Your task to perform on an android device: Go to ESPN.com Image 0: 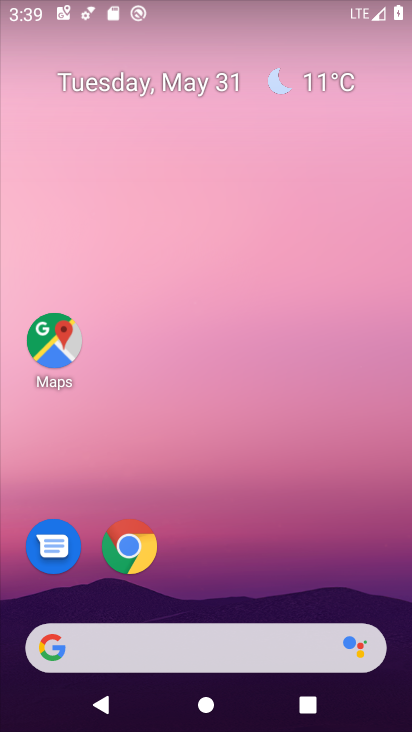
Step 0: click (129, 556)
Your task to perform on an android device: Go to ESPN.com Image 1: 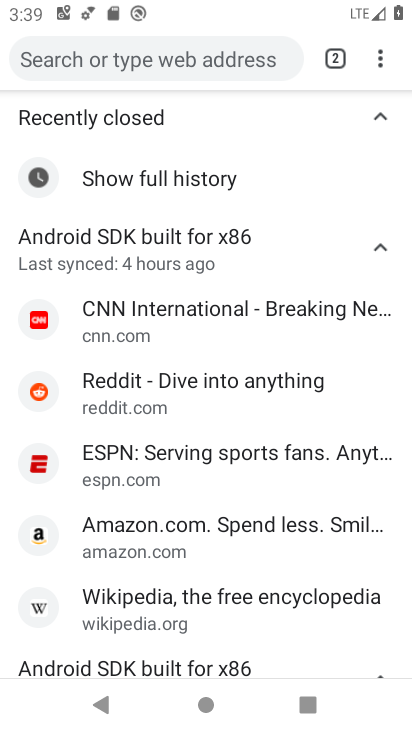
Step 1: click (329, 62)
Your task to perform on an android device: Go to ESPN.com Image 2: 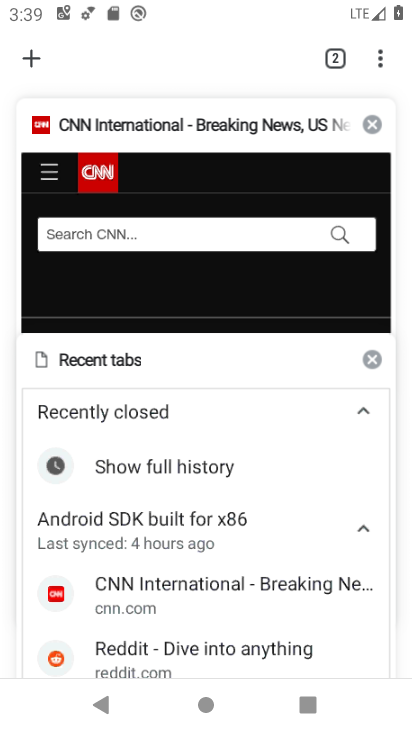
Step 2: click (17, 64)
Your task to perform on an android device: Go to ESPN.com Image 3: 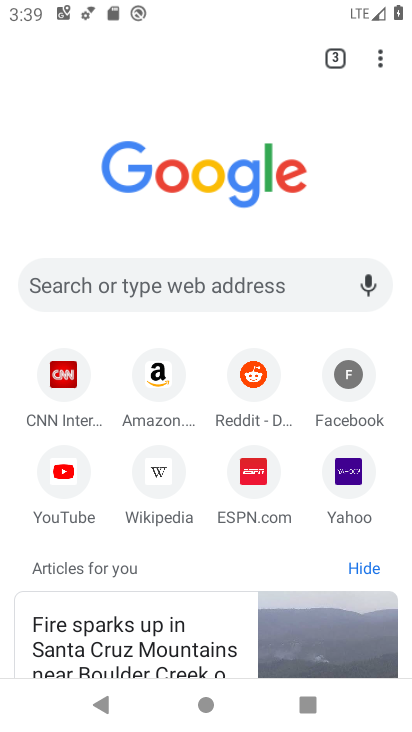
Step 3: click (263, 468)
Your task to perform on an android device: Go to ESPN.com Image 4: 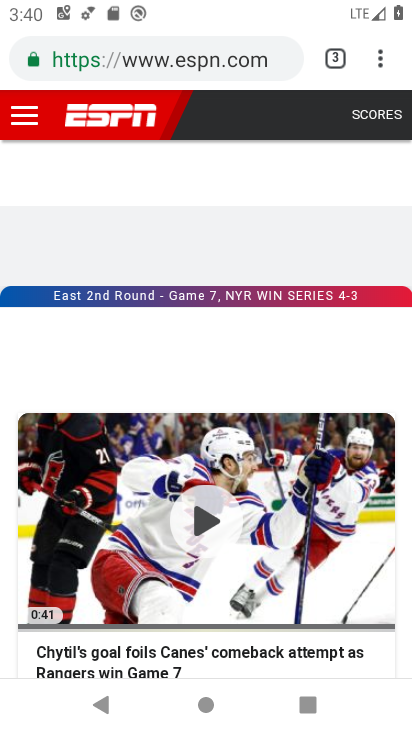
Step 4: task complete